Your task to perform on an android device: Check the news Image 0: 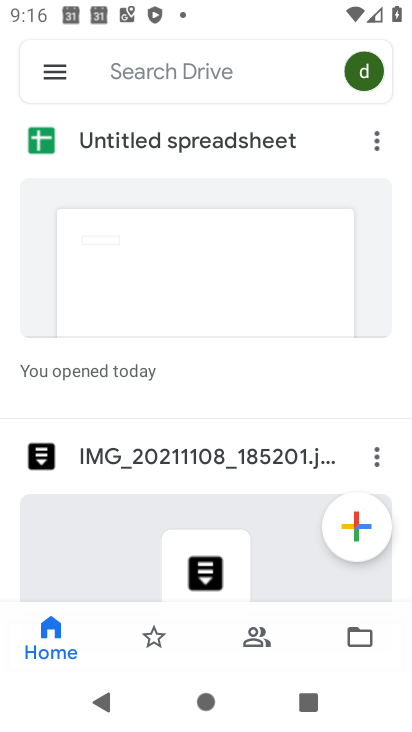
Step 0: press home button
Your task to perform on an android device: Check the news Image 1: 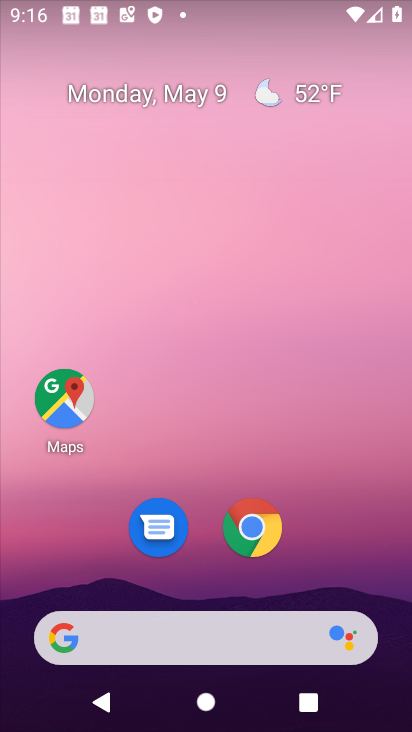
Step 1: drag from (198, 575) to (214, 20)
Your task to perform on an android device: Check the news Image 2: 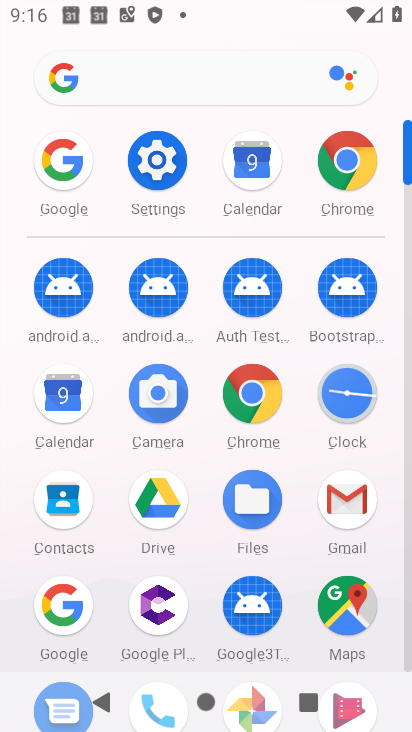
Step 2: click (64, 161)
Your task to perform on an android device: Check the news Image 3: 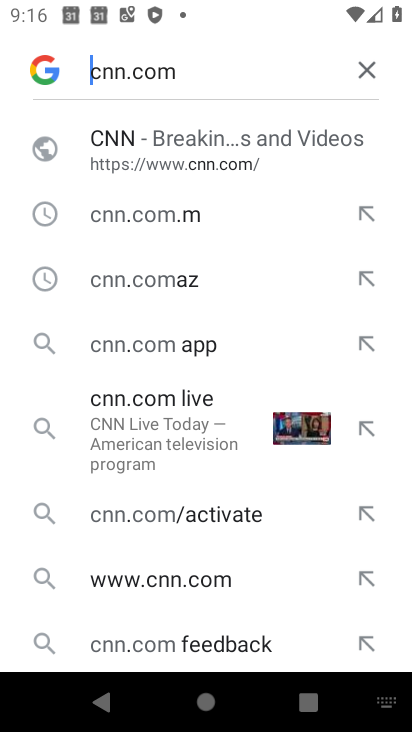
Step 3: drag from (362, 68) to (411, 32)
Your task to perform on an android device: Check the news Image 4: 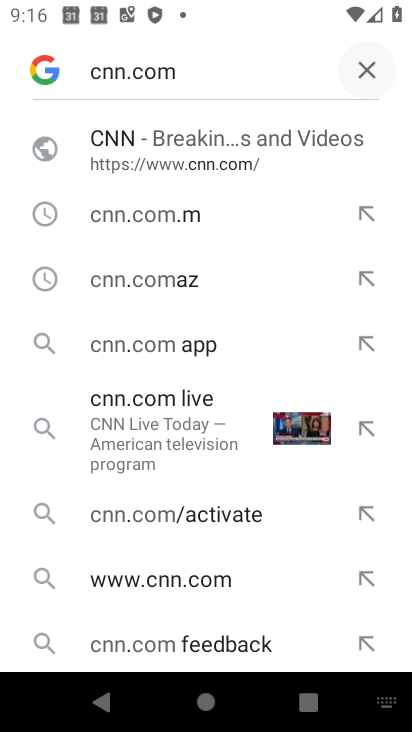
Step 4: click (377, 61)
Your task to perform on an android device: Check the news Image 5: 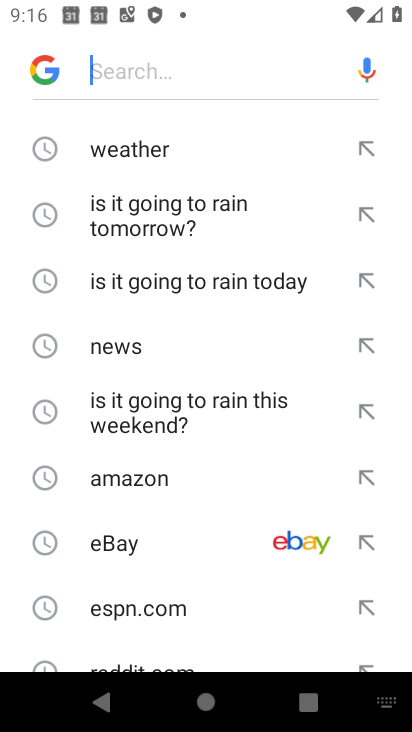
Step 5: type "check the news"
Your task to perform on an android device: Check the news Image 6: 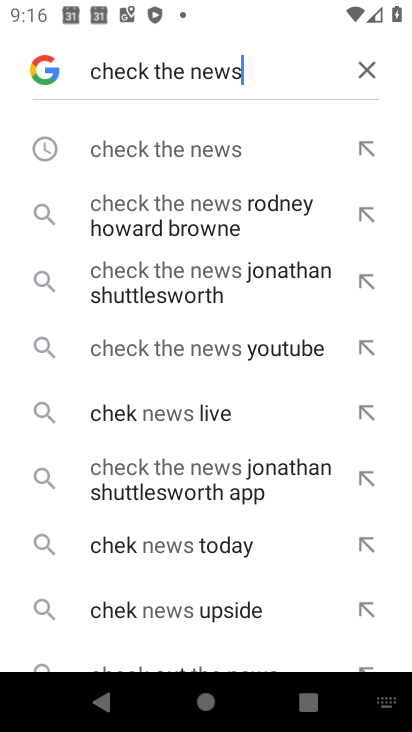
Step 6: click (143, 154)
Your task to perform on an android device: Check the news Image 7: 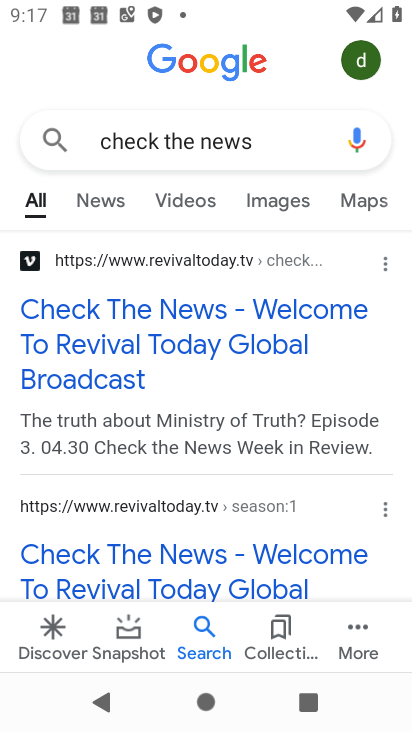
Step 7: task complete